Your task to perform on an android device: Open the Play Movies app and select the watchlist tab. Image 0: 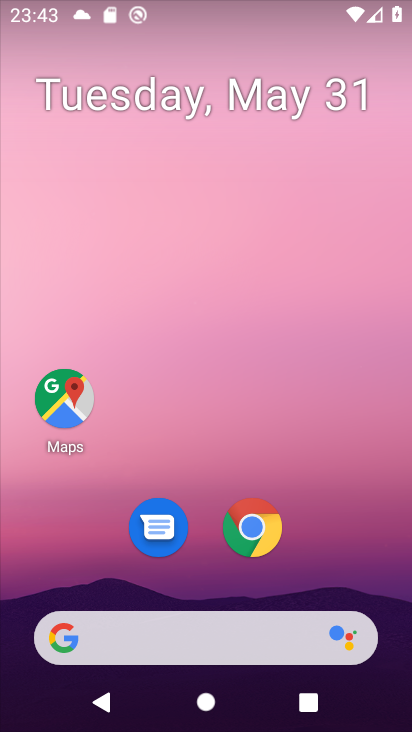
Step 0: drag from (363, 556) to (210, 9)
Your task to perform on an android device: Open the Play Movies app and select the watchlist tab. Image 1: 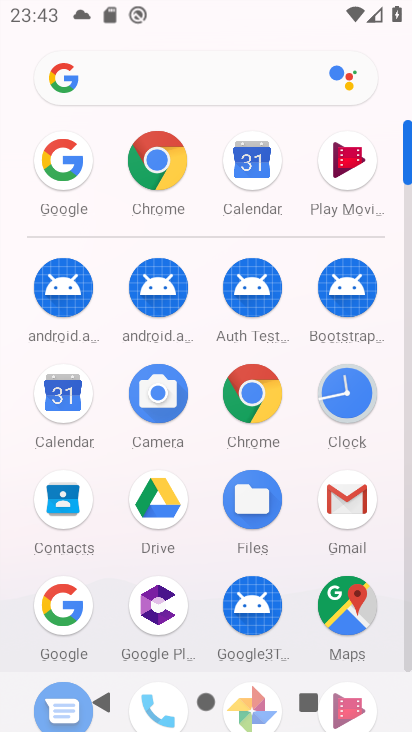
Step 1: drag from (317, 577) to (331, 220)
Your task to perform on an android device: Open the Play Movies app and select the watchlist tab. Image 2: 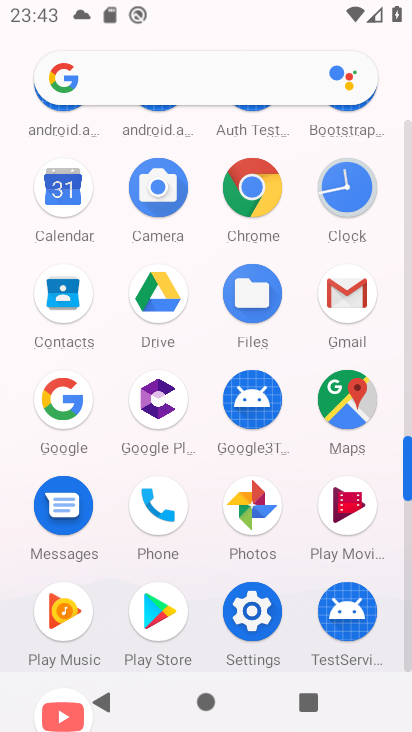
Step 2: click (355, 518)
Your task to perform on an android device: Open the Play Movies app and select the watchlist tab. Image 3: 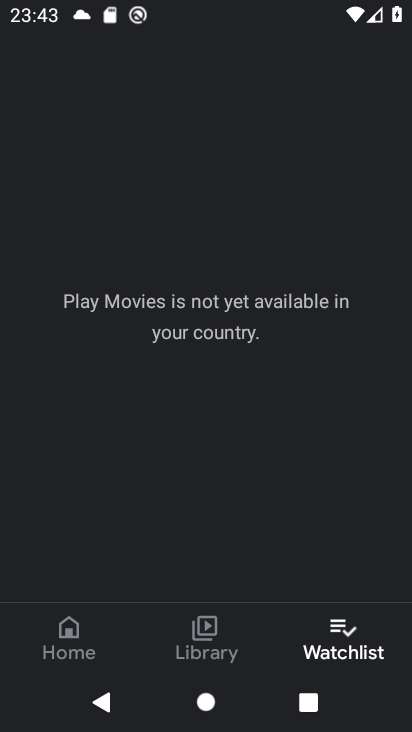
Step 3: task complete